Your task to perform on an android device: set the stopwatch Image 0: 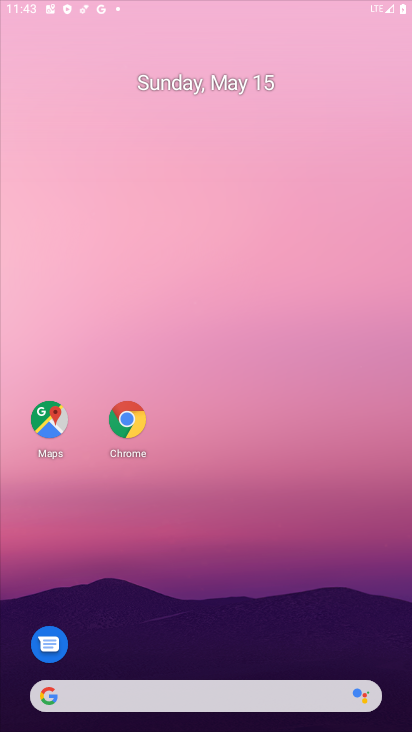
Step 0: click (207, 92)
Your task to perform on an android device: set the stopwatch Image 1: 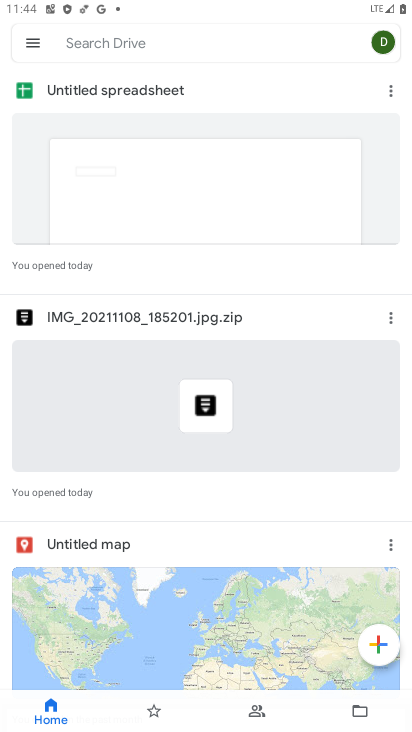
Step 1: drag from (169, 516) to (237, 126)
Your task to perform on an android device: set the stopwatch Image 2: 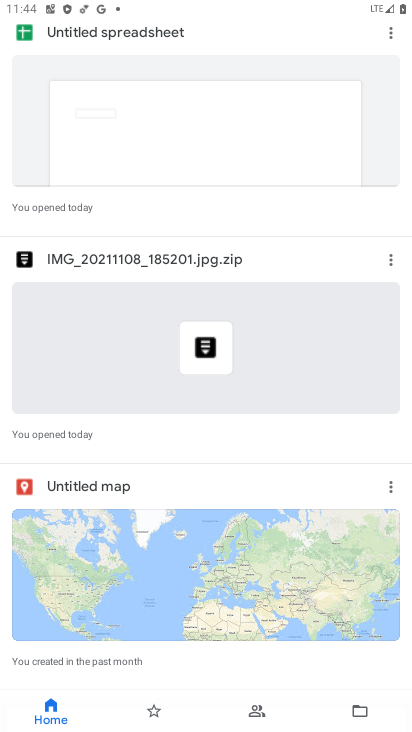
Step 2: press home button
Your task to perform on an android device: set the stopwatch Image 3: 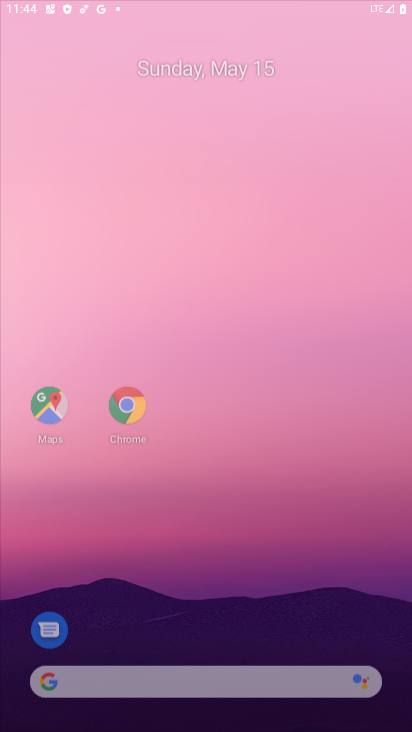
Step 3: drag from (138, 595) to (267, 123)
Your task to perform on an android device: set the stopwatch Image 4: 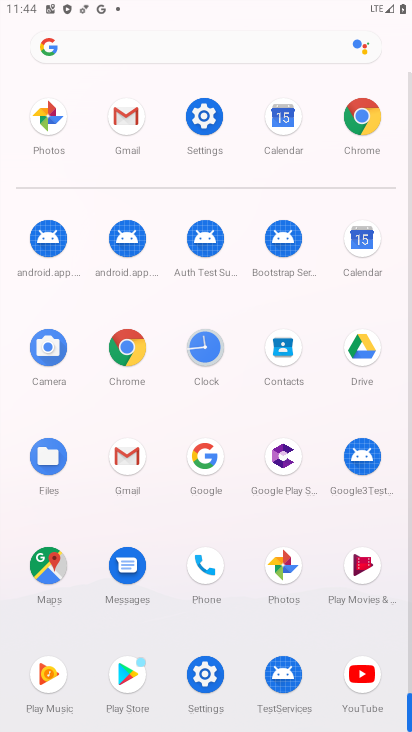
Step 4: click (209, 339)
Your task to perform on an android device: set the stopwatch Image 5: 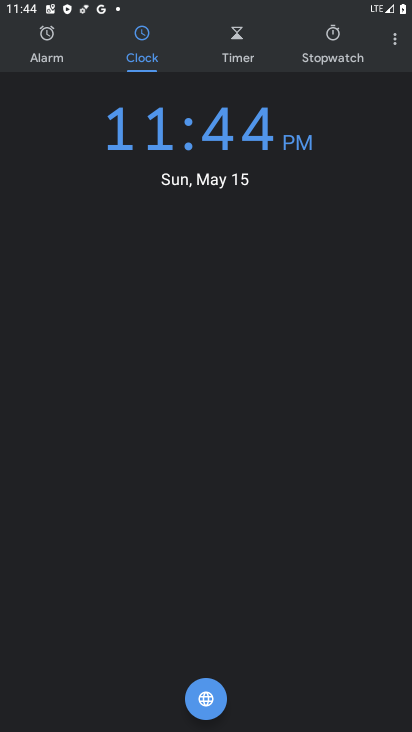
Step 5: click (338, 45)
Your task to perform on an android device: set the stopwatch Image 6: 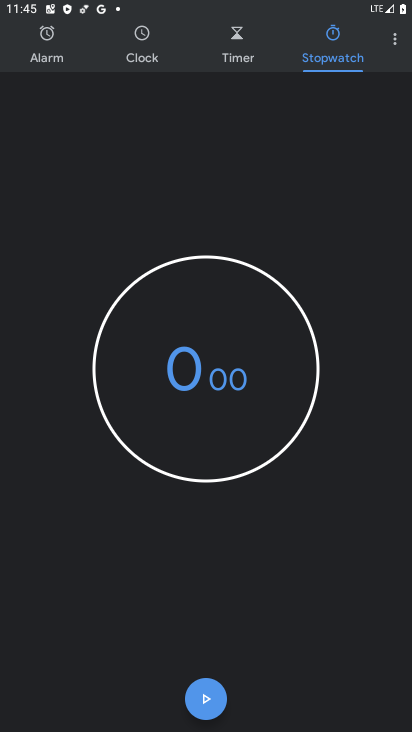
Step 6: click (215, 718)
Your task to perform on an android device: set the stopwatch Image 7: 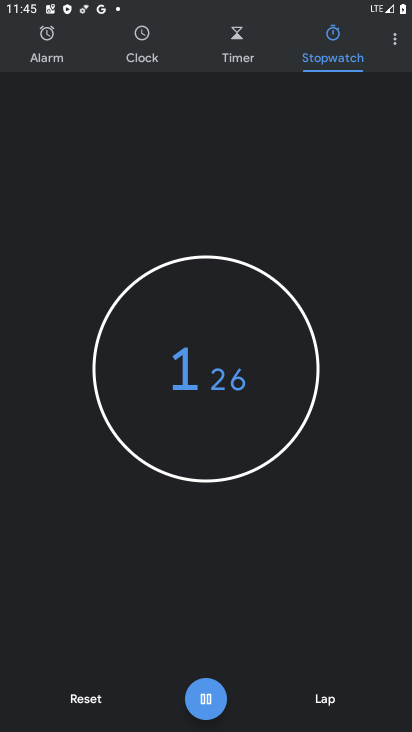
Step 7: task complete